Your task to perform on an android device: turn off location history Image 0: 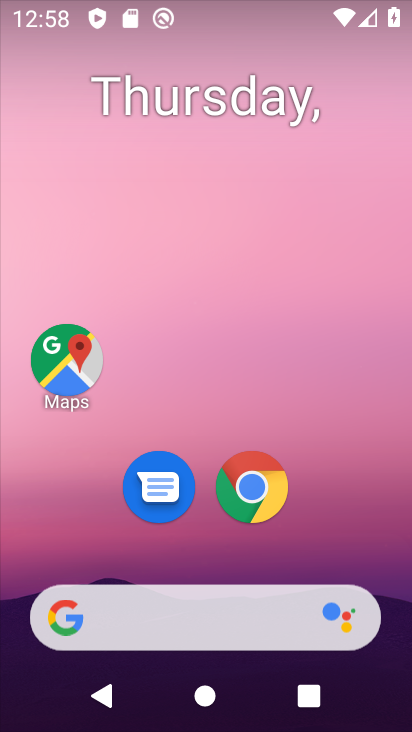
Step 0: drag from (274, 550) to (411, 114)
Your task to perform on an android device: turn off location history Image 1: 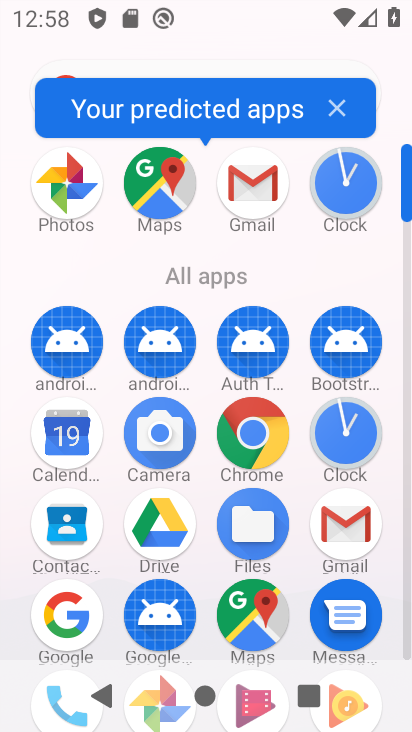
Step 1: drag from (142, 599) to (273, 202)
Your task to perform on an android device: turn off location history Image 2: 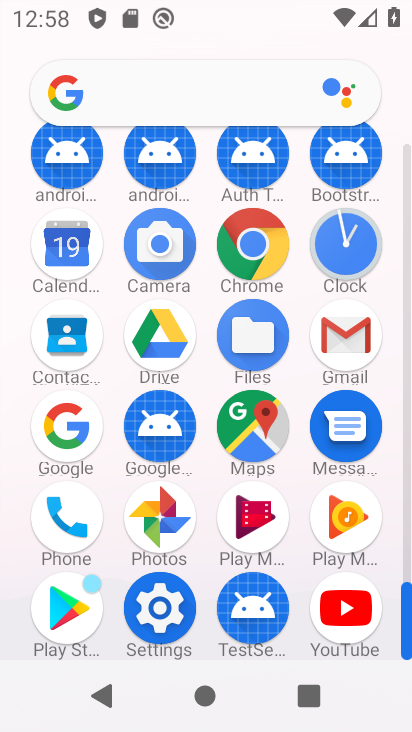
Step 2: click (150, 603)
Your task to perform on an android device: turn off location history Image 3: 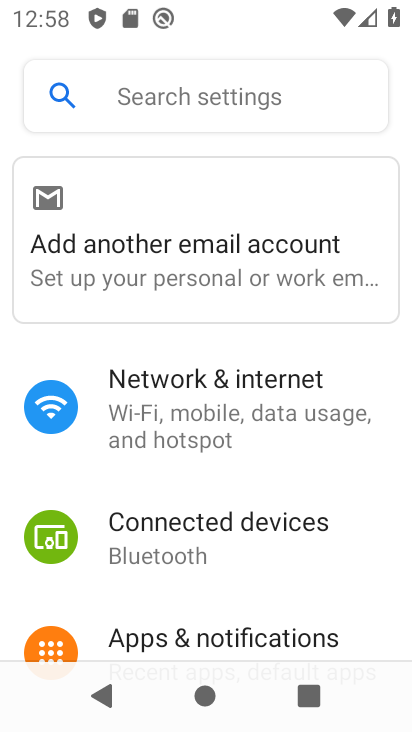
Step 3: drag from (192, 538) to (371, 112)
Your task to perform on an android device: turn off location history Image 4: 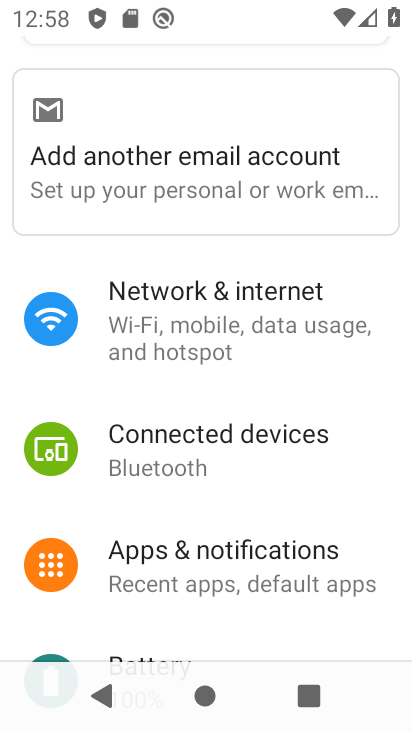
Step 4: drag from (148, 551) to (305, 172)
Your task to perform on an android device: turn off location history Image 5: 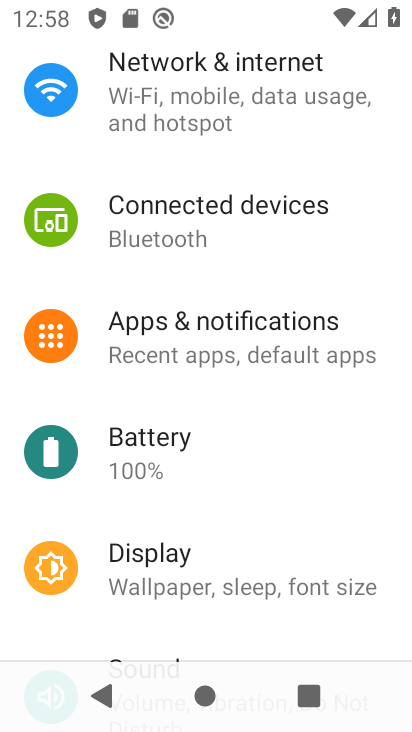
Step 5: drag from (218, 468) to (358, 99)
Your task to perform on an android device: turn off location history Image 6: 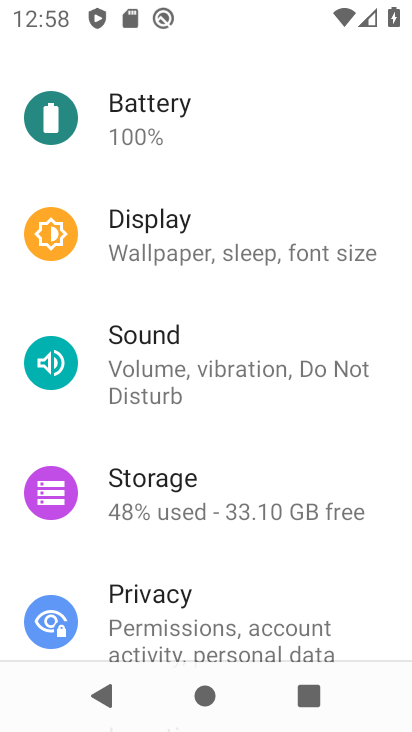
Step 6: drag from (194, 573) to (318, 144)
Your task to perform on an android device: turn off location history Image 7: 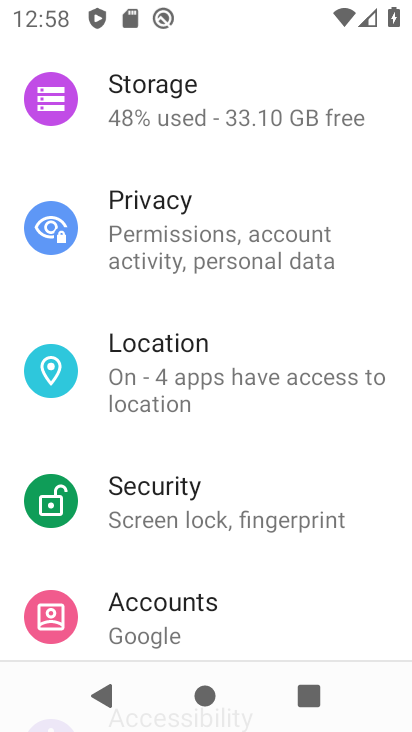
Step 7: click (235, 336)
Your task to perform on an android device: turn off location history Image 8: 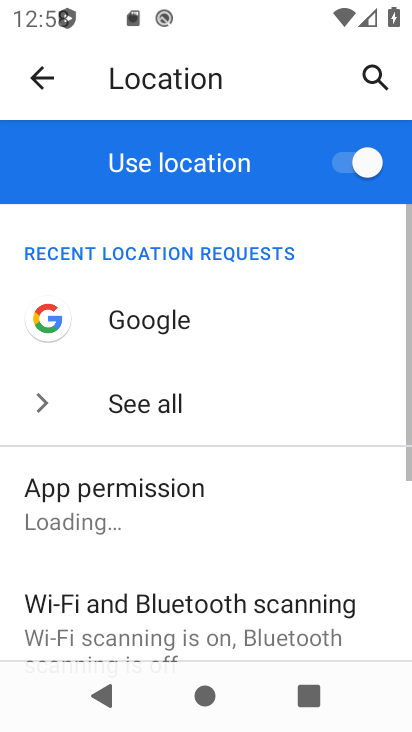
Step 8: drag from (202, 558) to (327, 194)
Your task to perform on an android device: turn off location history Image 9: 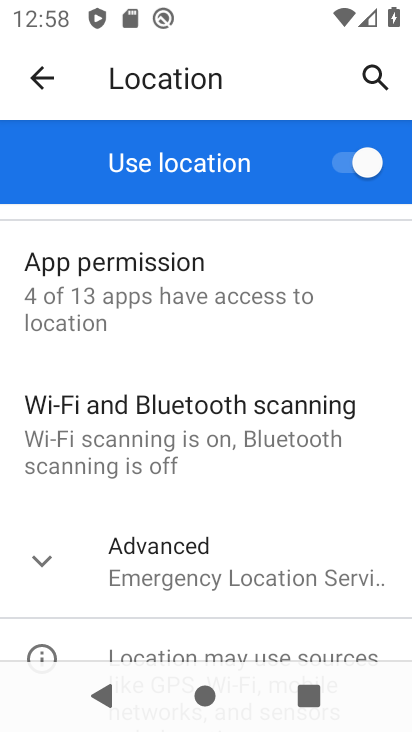
Step 9: drag from (213, 505) to (308, 171)
Your task to perform on an android device: turn off location history Image 10: 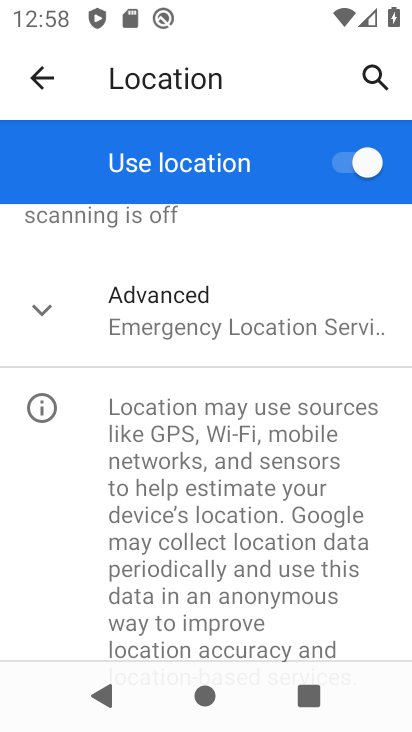
Step 10: click (244, 327)
Your task to perform on an android device: turn off location history Image 11: 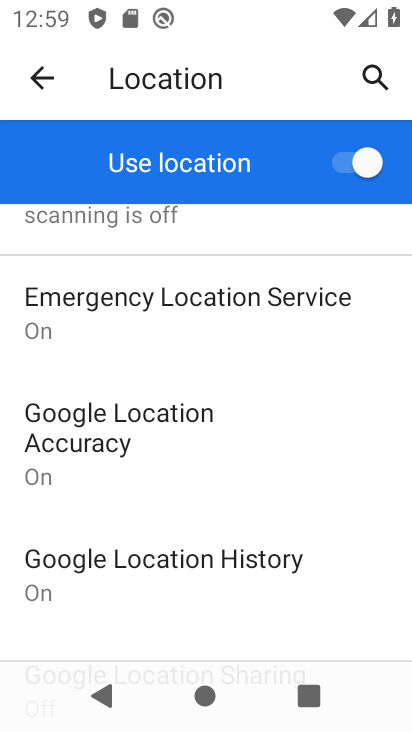
Step 11: drag from (212, 490) to (268, 297)
Your task to perform on an android device: turn off location history Image 12: 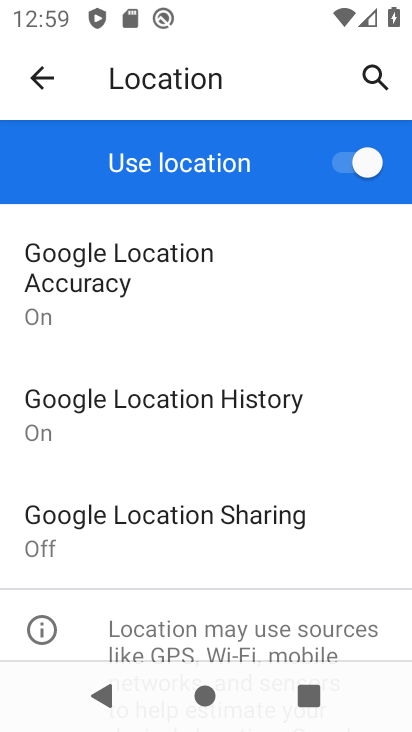
Step 12: click (240, 364)
Your task to perform on an android device: turn off location history Image 13: 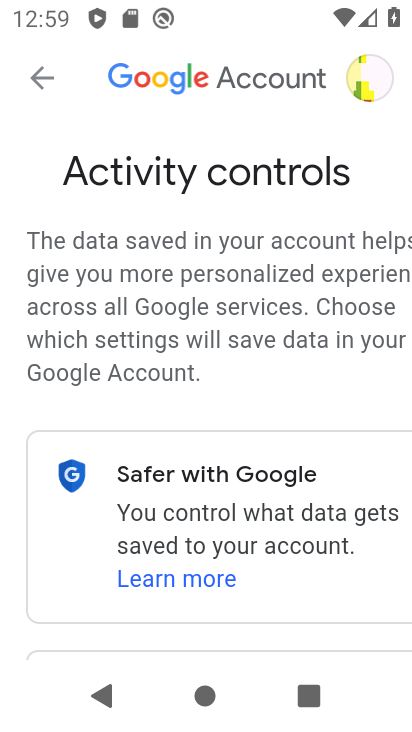
Step 13: drag from (251, 594) to (380, 109)
Your task to perform on an android device: turn off location history Image 14: 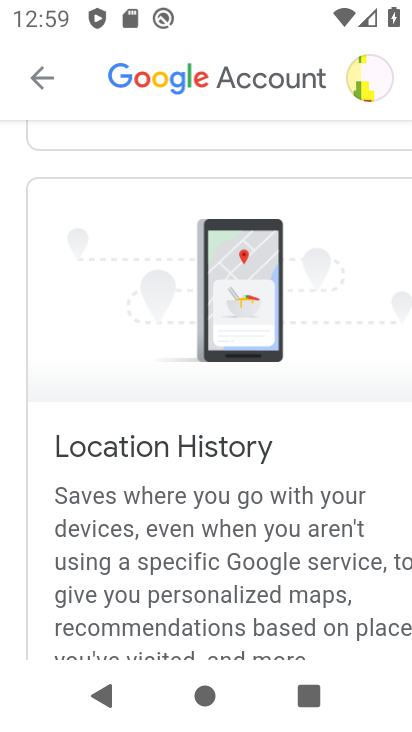
Step 14: drag from (185, 523) to (303, 109)
Your task to perform on an android device: turn off location history Image 15: 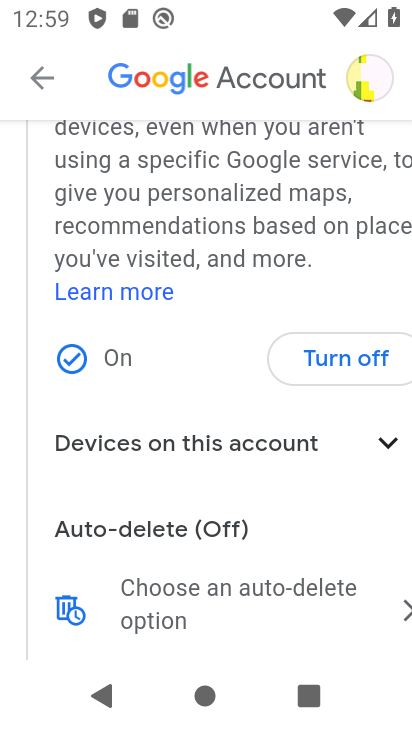
Step 15: click (383, 361)
Your task to perform on an android device: turn off location history Image 16: 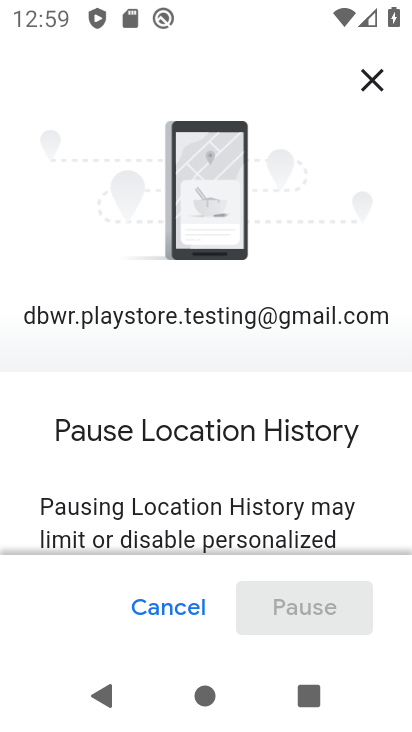
Step 16: drag from (264, 309) to (368, 30)
Your task to perform on an android device: turn off location history Image 17: 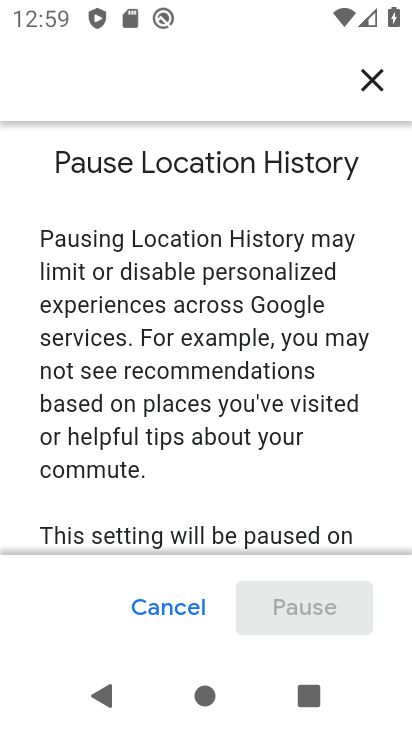
Step 17: drag from (141, 470) to (260, 71)
Your task to perform on an android device: turn off location history Image 18: 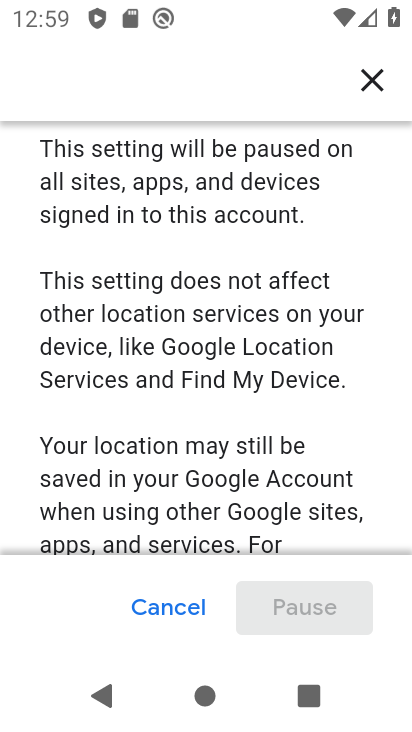
Step 18: drag from (157, 487) to (285, 88)
Your task to perform on an android device: turn off location history Image 19: 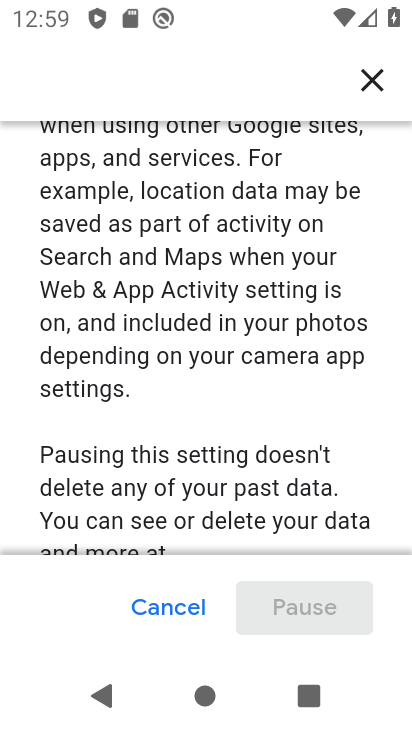
Step 19: drag from (206, 425) to (310, 82)
Your task to perform on an android device: turn off location history Image 20: 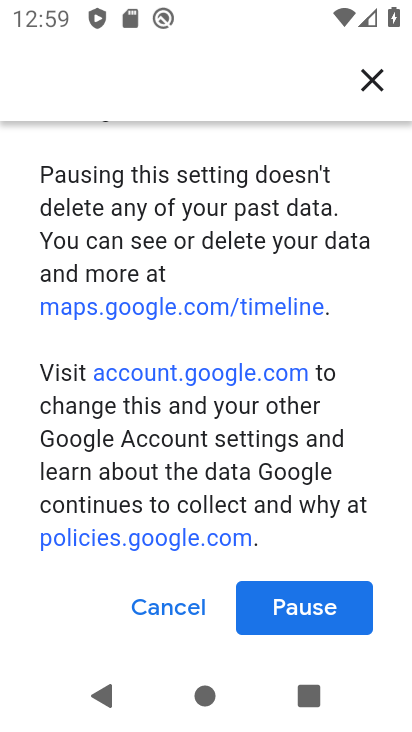
Step 20: click (279, 605)
Your task to perform on an android device: turn off location history Image 21: 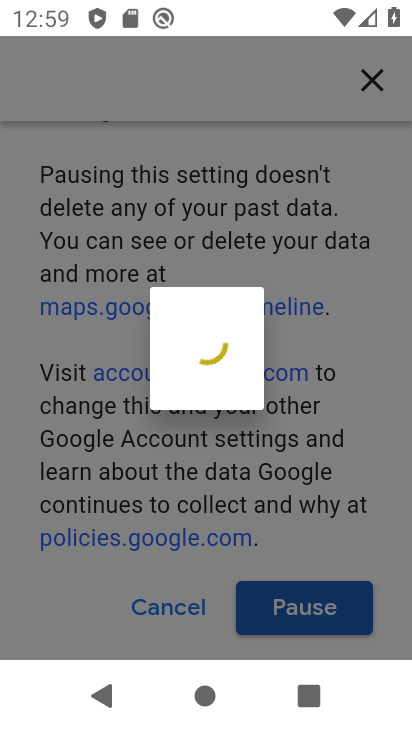
Step 21: click (341, 623)
Your task to perform on an android device: turn off location history Image 22: 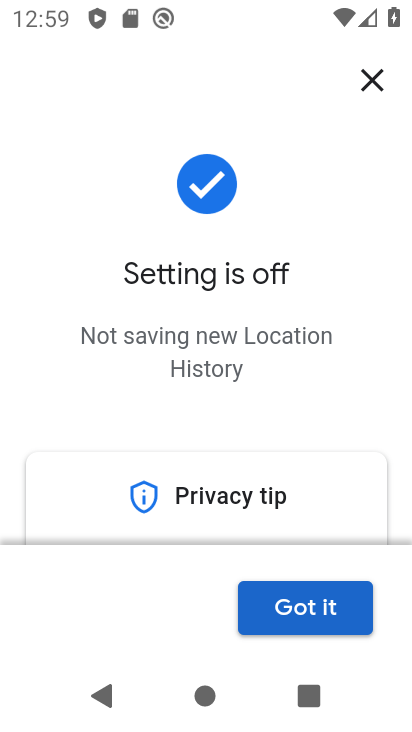
Step 22: click (341, 623)
Your task to perform on an android device: turn off location history Image 23: 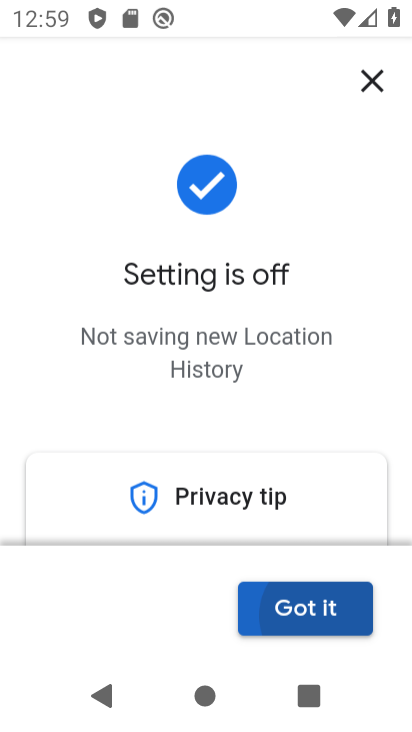
Step 23: click (306, 605)
Your task to perform on an android device: turn off location history Image 24: 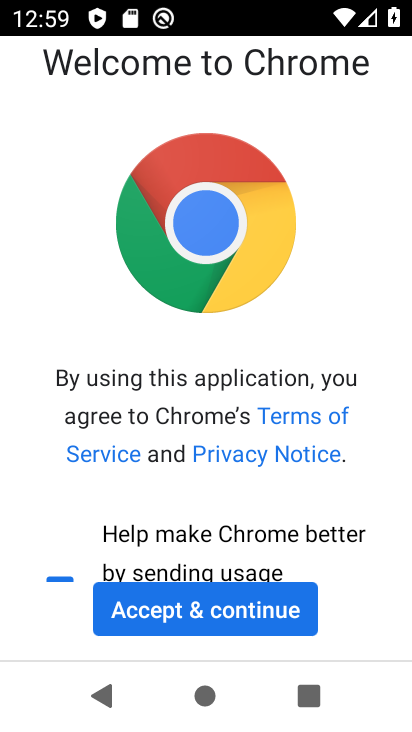
Step 24: task complete